Your task to perform on an android device: change the clock display to digital Image 0: 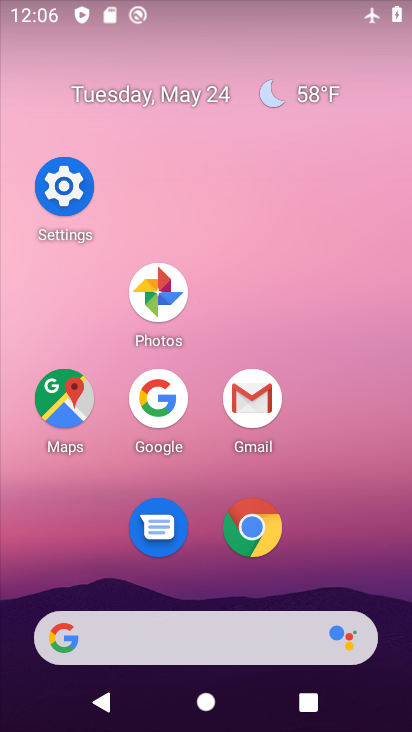
Step 0: drag from (314, 354) to (312, 86)
Your task to perform on an android device: change the clock display to digital Image 1: 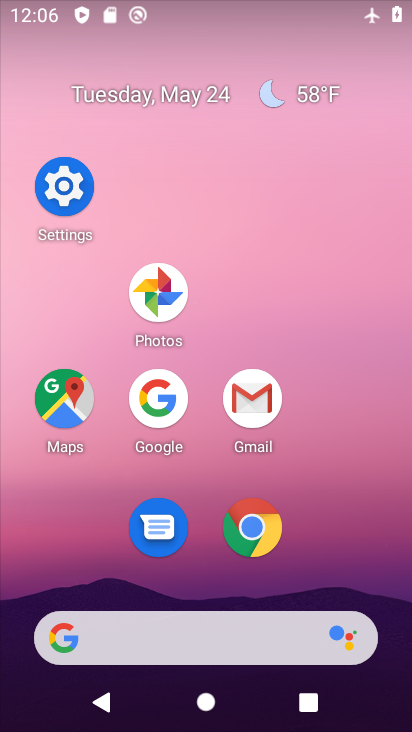
Step 1: drag from (308, 540) to (331, 114)
Your task to perform on an android device: change the clock display to digital Image 2: 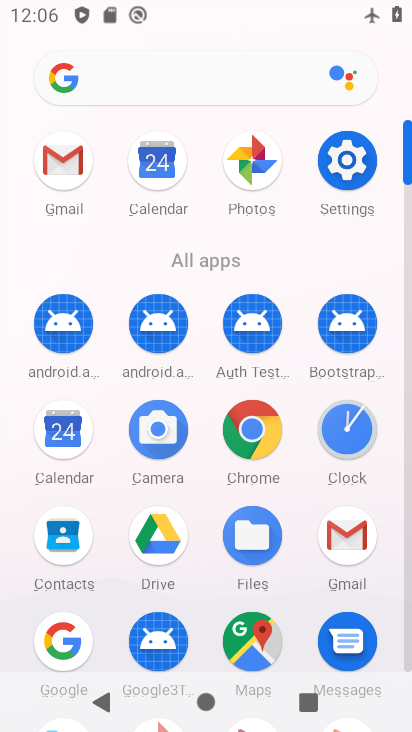
Step 2: click (362, 424)
Your task to perform on an android device: change the clock display to digital Image 3: 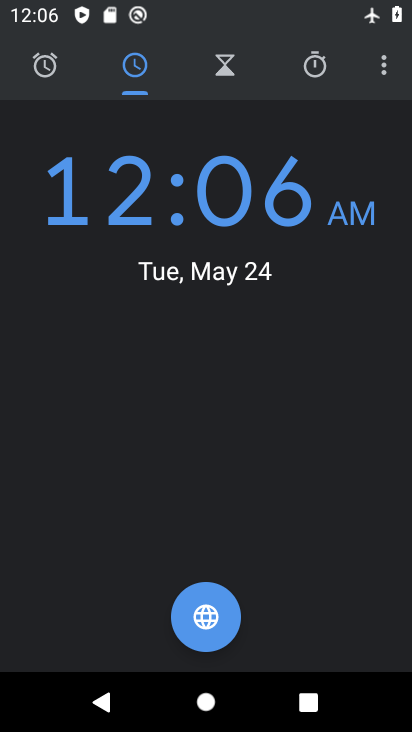
Step 3: click (375, 85)
Your task to perform on an android device: change the clock display to digital Image 4: 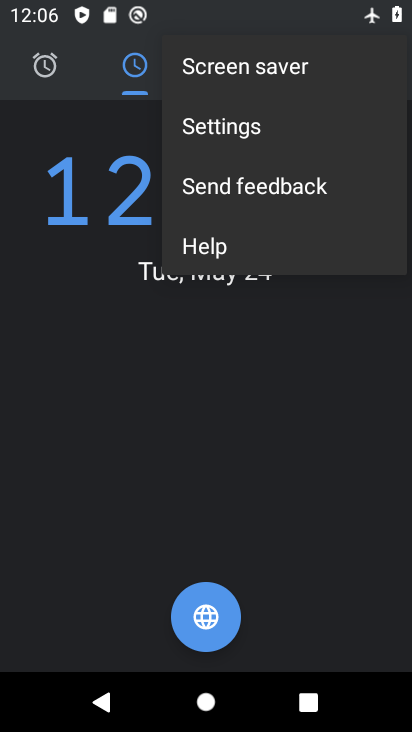
Step 4: click (281, 141)
Your task to perform on an android device: change the clock display to digital Image 5: 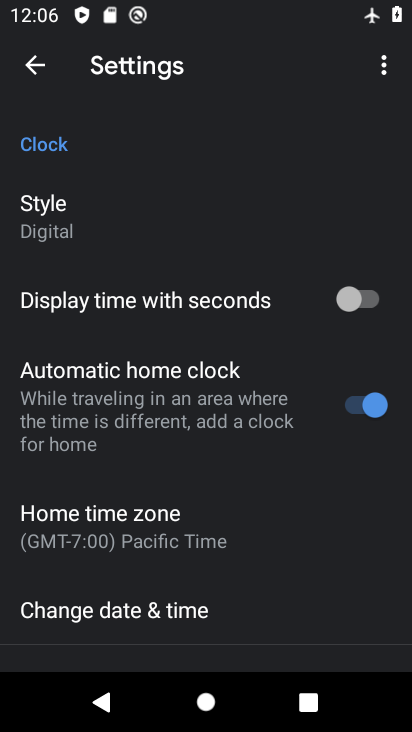
Step 5: task complete